Your task to perform on an android device: turn on bluetooth scan Image 0: 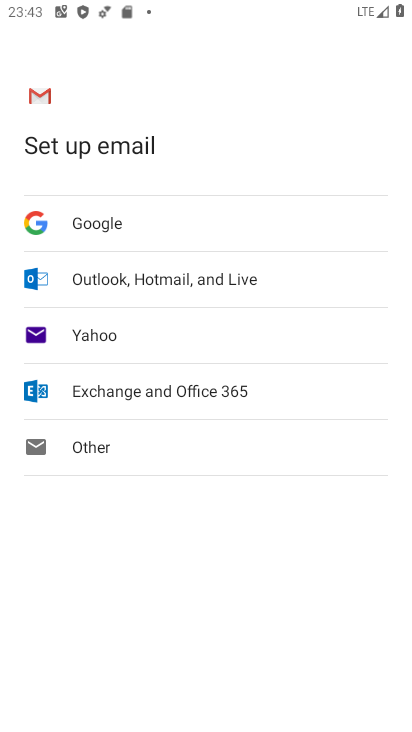
Step 0: press home button
Your task to perform on an android device: turn on bluetooth scan Image 1: 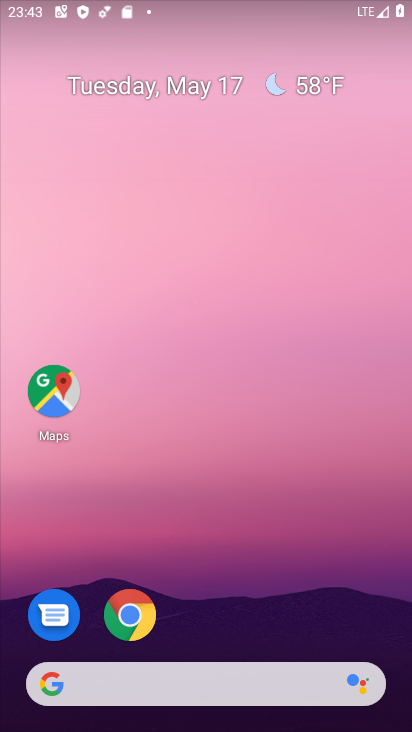
Step 1: drag from (231, 601) to (255, 184)
Your task to perform on an android device: turn on bluetooth scan Image 2: 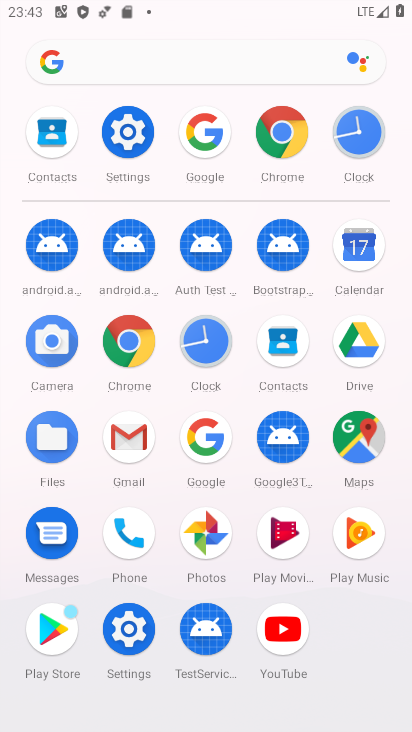
Step 2: click (128, 138)
Your task to perform on an android device: turn on bluetooth scan Image 3: 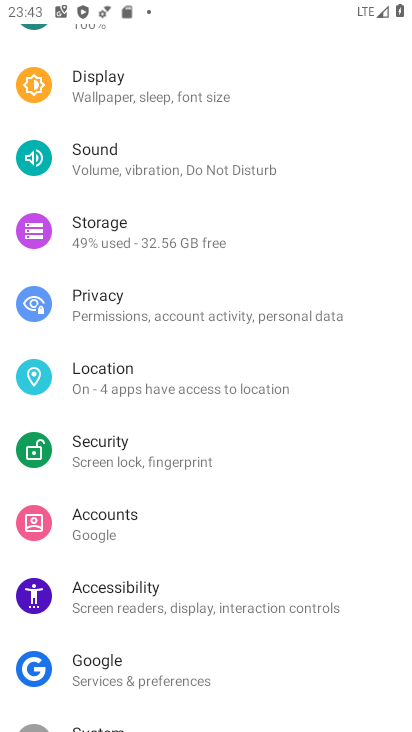
Step 3: click (124, 370)
Your task to perform on an android device: turn on bluetooth scan Image 4: 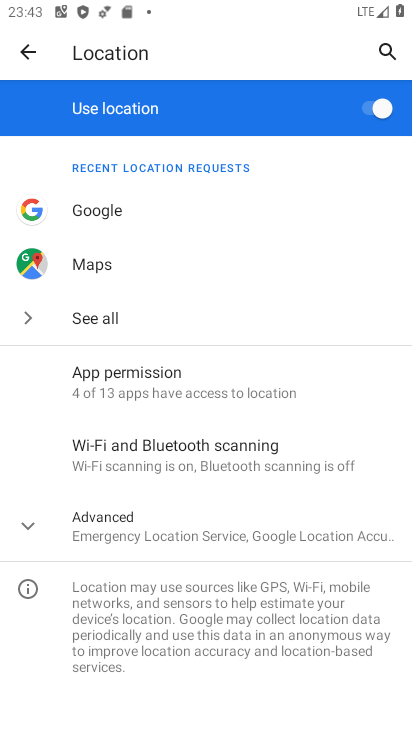
Step 4: click (168, 460)
Your task to perform on an android device: turn on bluetooth scan Image 5: 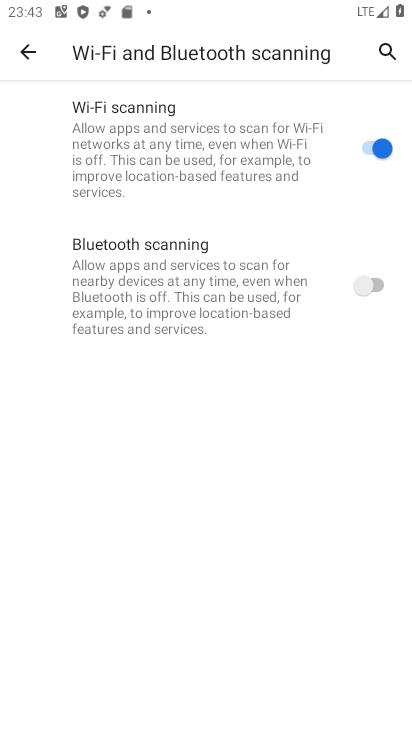
Step 5: click (383, 282)
Your task to perform on an android device: turn on bluetooth scan Image 6: 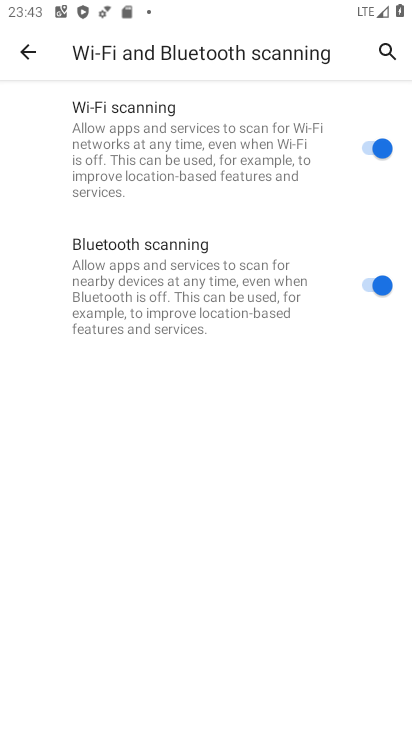
Step 6: task complete